Your task to perform on an android device: Open calendar and show me the fourth week of next month Image 0: 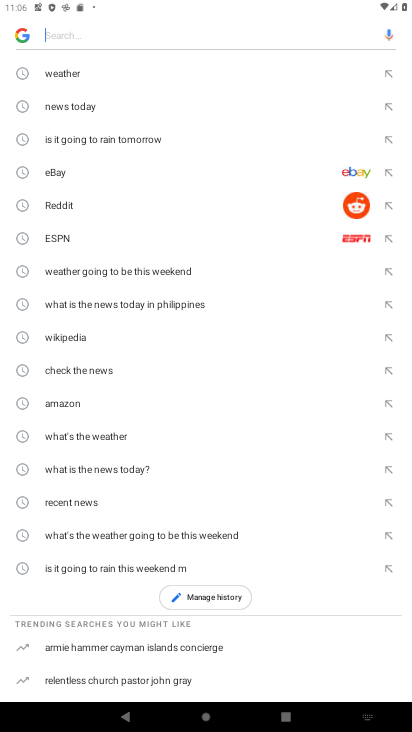
Step 0: press back button
Your task to perform on an android device: Open calendar and show me the fourth week of next month Image 1: 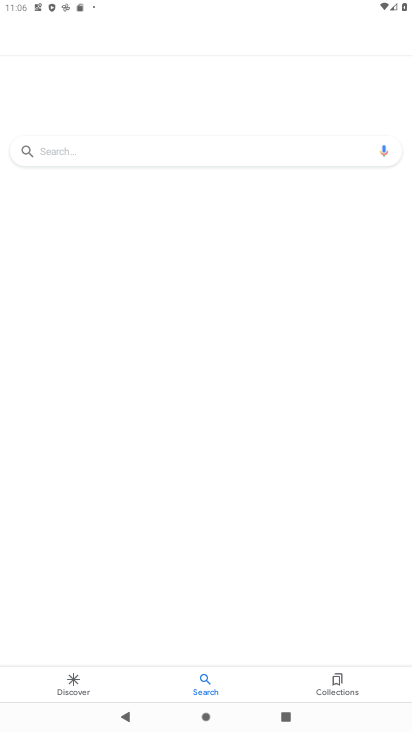
Step 1: press back button
Your task to perform on an android device: Open calendar and show me the fourth week of next month Image 2: 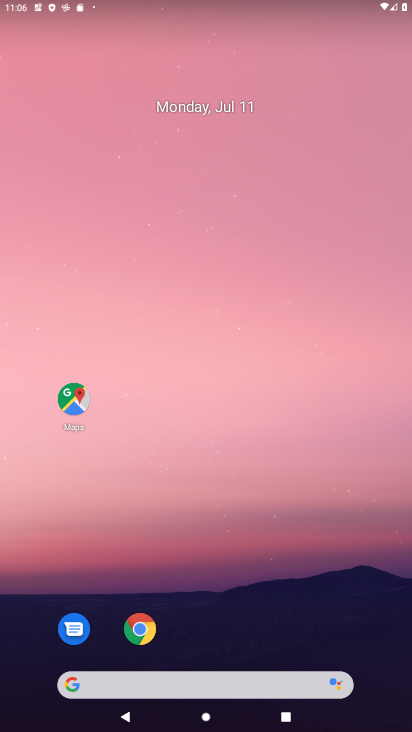
Step 2: drag from (239, 642) to (249, 256)
Your task to perform on an android device: Open calendar and show me the fourth week of next month Image 3: 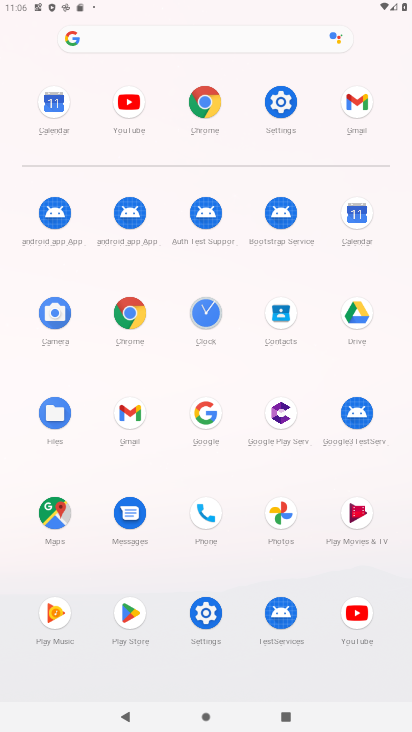
Step 3: click (349, 224)
Your task to perform on an android device: Open calendar and show me the fourth week of next month Image 4: 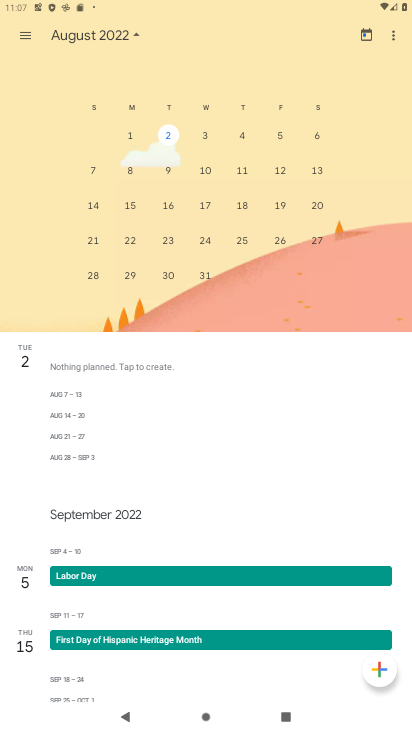
Step 4: click (169, 245)
Your task to perform on an android device: Open calendar and show me the fourth week of next month Image 5: 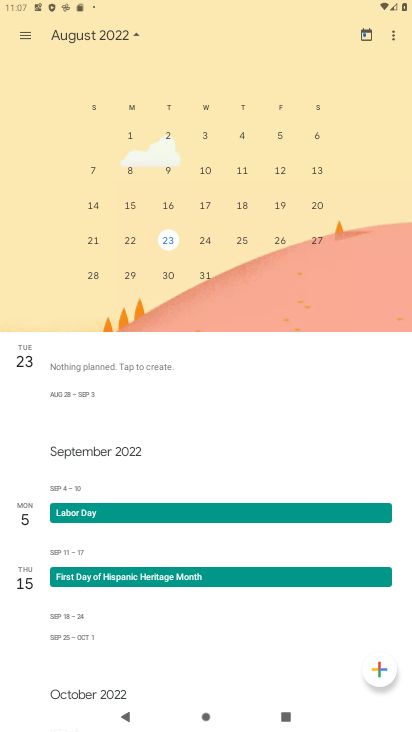
Step 5: task complete